Your task to perform on an android device: Open Maps and search for coffee Image 0: 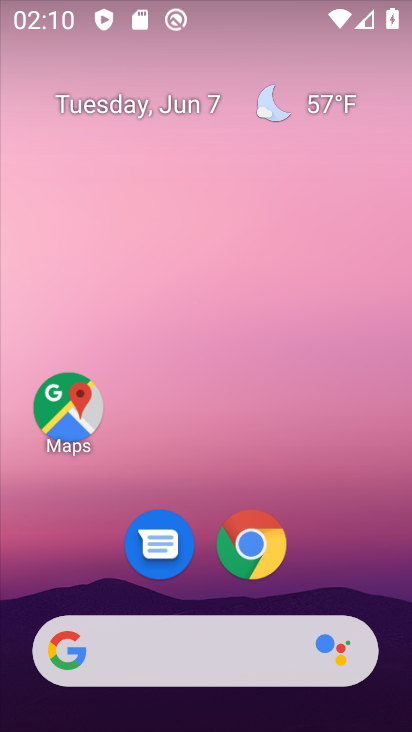
Step 0: click (92, 398)
Your task to perform on an android device: Open Maps and search for coffee Image 1: 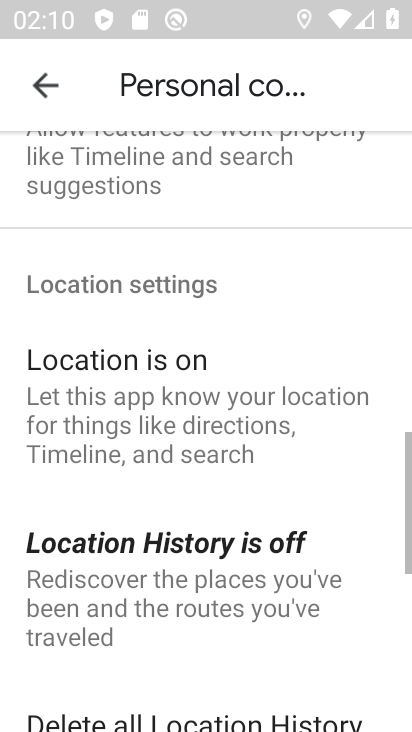
Step 1: click (71, 83)
Your task to perform on an android device: Open Maps and search for coffee Image 2: 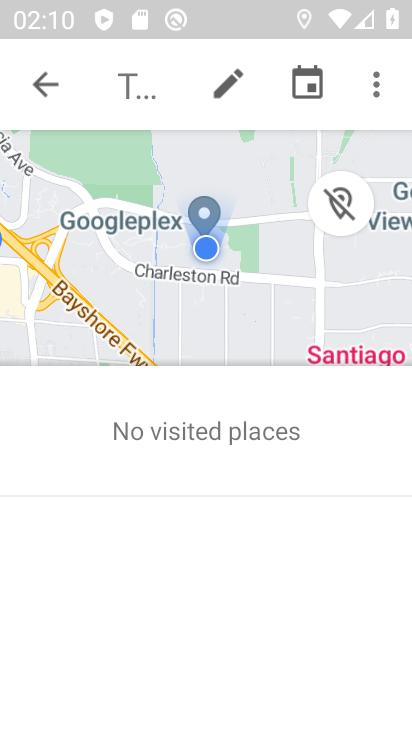
Step 2: click (71, 83)
Your task to perform on an android device: Open Maps and search for coffee Image 3: 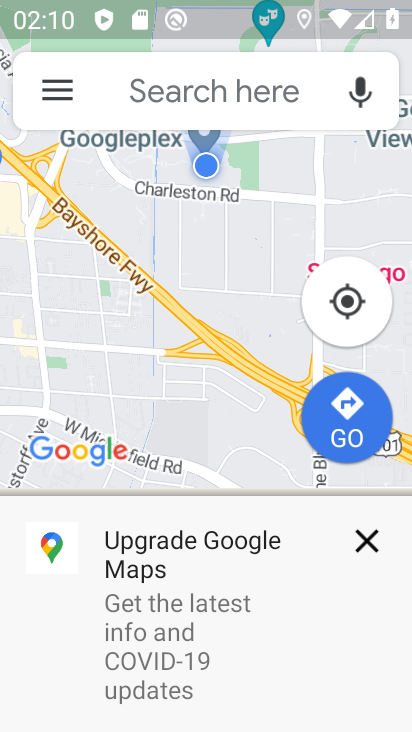
Step 3: click (151, 63)
Your task to perform on an android device: Open Maps and search for coffee Image 4: 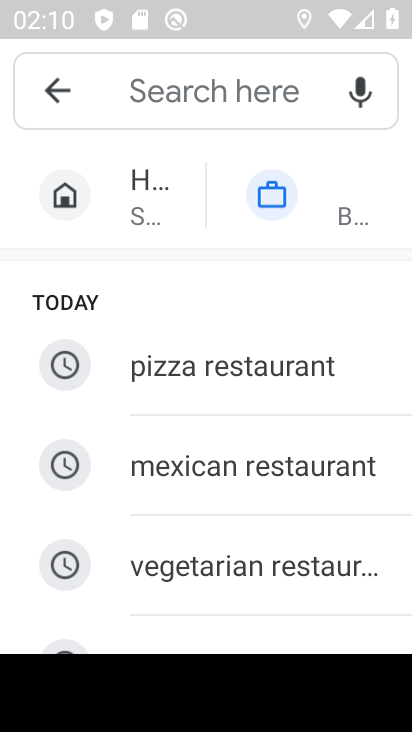
Step 4: click (127, 97)
Your task to perform on an android device: Open Maps and search for coffee Image 5: 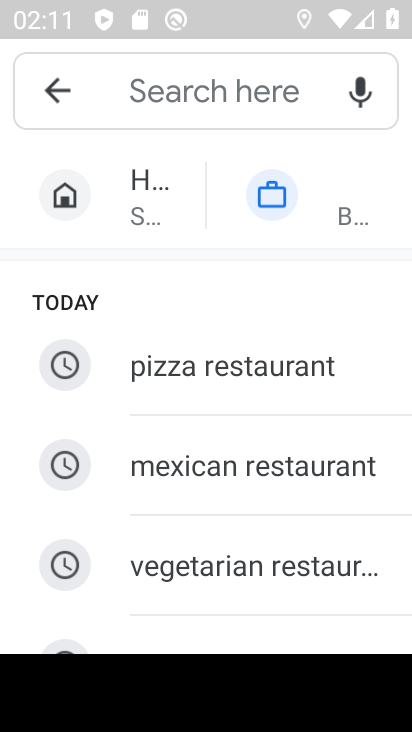
Step 5: type "coffee"
Your task to perform on an android device: Open Maps and search for coffee Image 6: 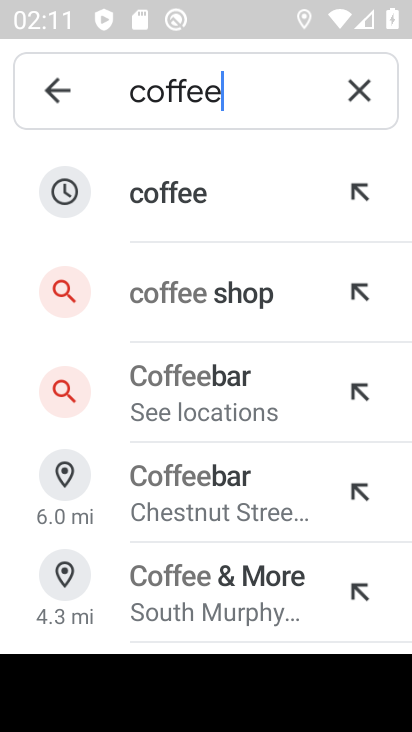
Step 6: click (162, 190)
Your task to perform on an android device: Open Maps and search for coffee Image 7: 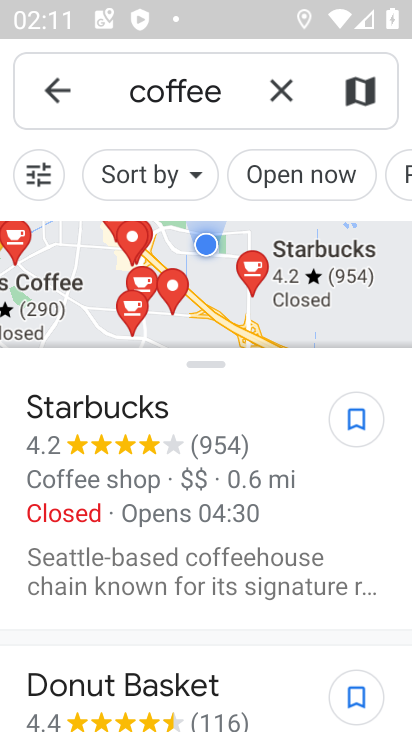
Step 7: task complete